Your task to perform on an android device: clear history in the chrome app Image 0: 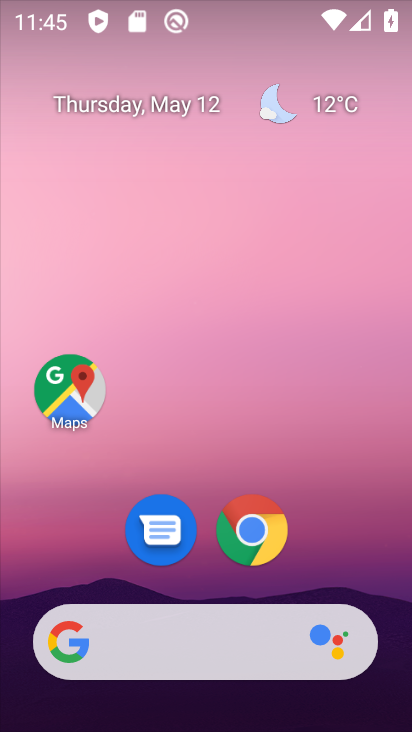
Step 0: click (253, 527)
Your task to perform on an android device: clear history in the chrome app Image 1: 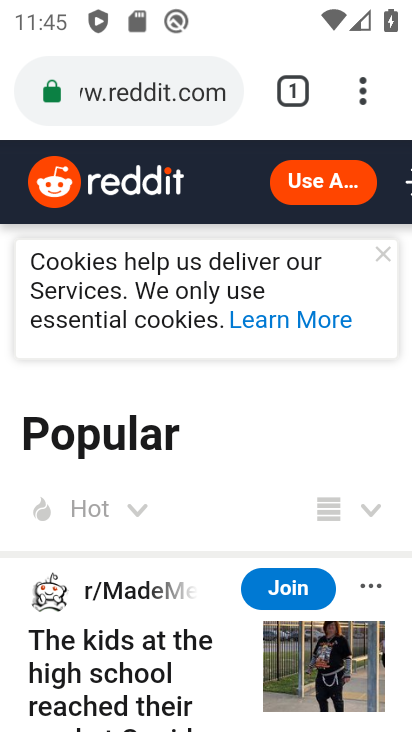
Step 1: click (367, 88)
Your task to perform on an android device: clear history in the chrome app Image 2: 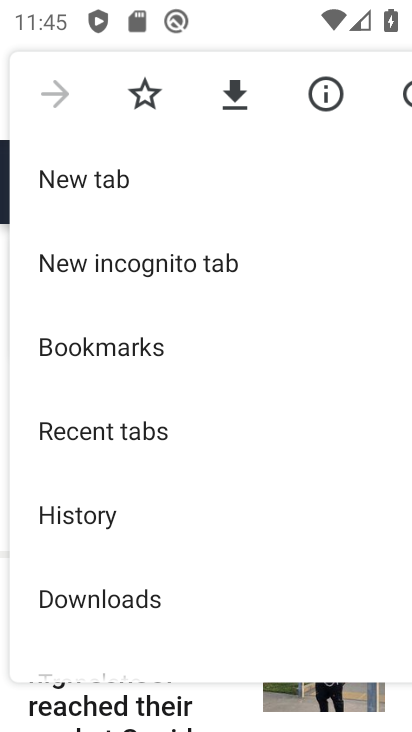
Step 2: click (110, 504)
Your task to perform on an android device: clear history in the chrome app Image 3: 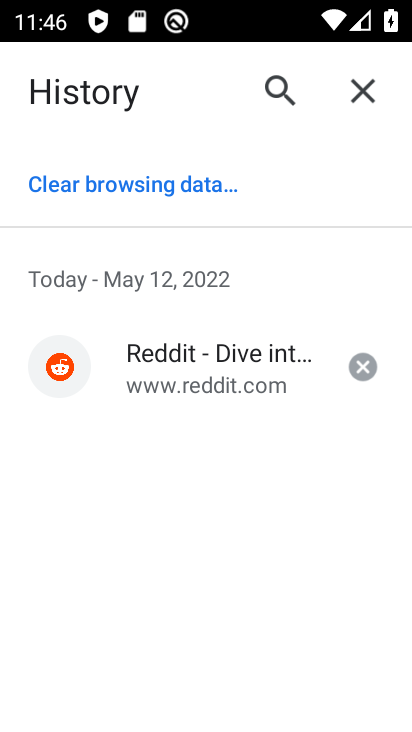
Step 3: click (139, 189)
Your task to perform on an android device: clear history in the chrome app Image 4: 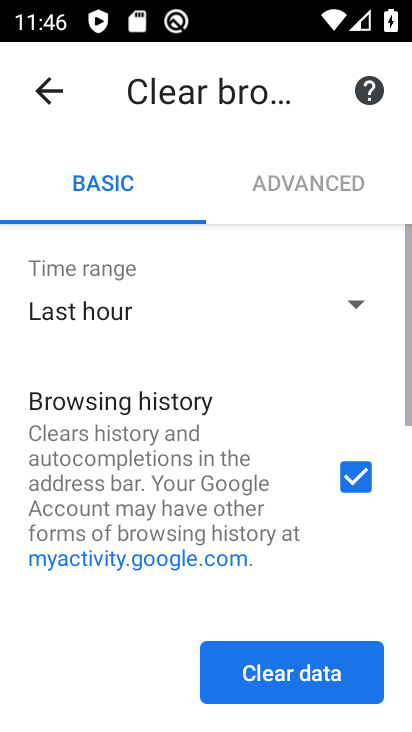
Step 4: click (195, 300)
Your task to perform on an android device: clear history in the chrome app Image 5: 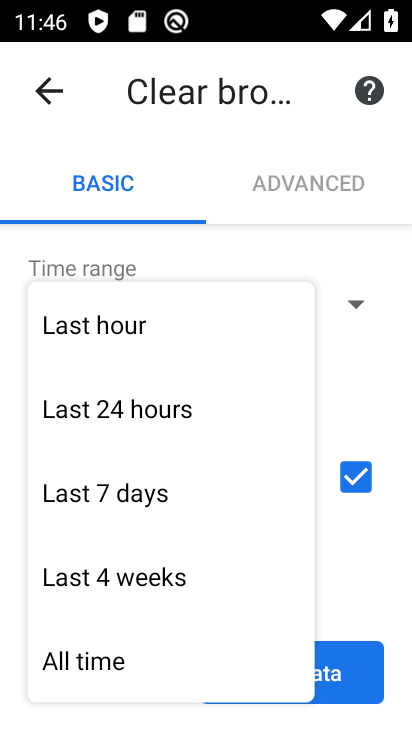
Step 5: click (113, 653)
Your task to perform on an android device: clear history in the chrome app Image 6: 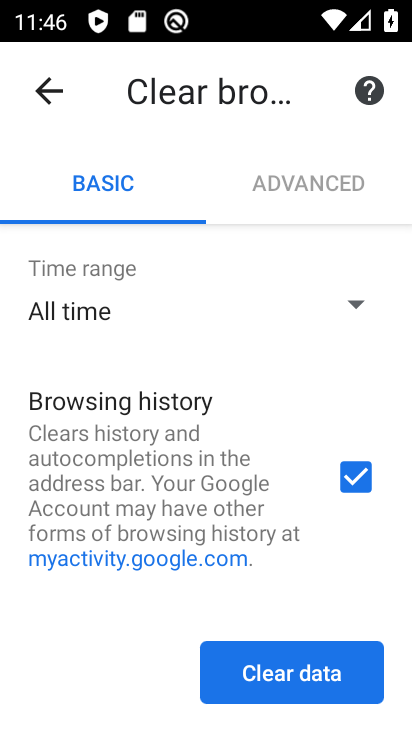
Step 6: click (258, 659)
Your task to perform on an android device: clear history in the chrome app Image 7: 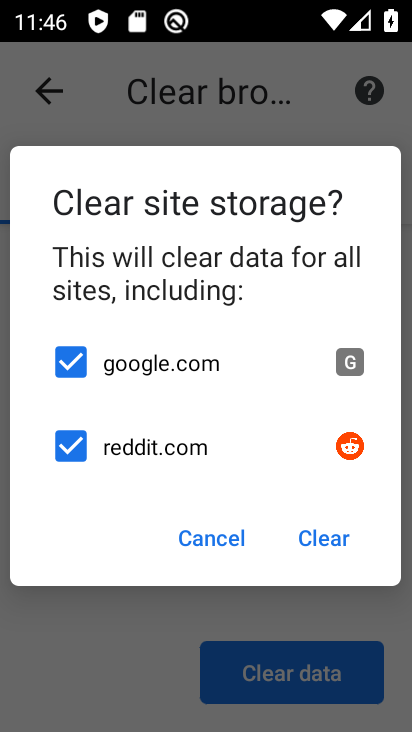
Step 7: click (340, 531)
Your task to perform on an android device: clear history in the chrome app Image 8: 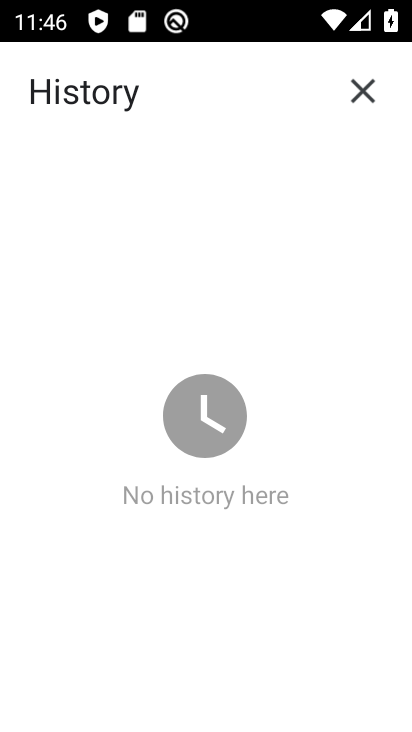
Step 8: task complete